Your task to perform on an android device: turn off smart reply in the gmail app Image 0: 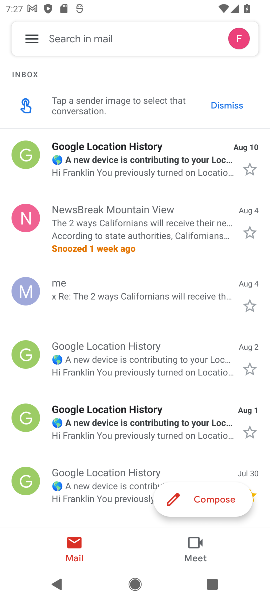
Step 0: click (26, 37)
Your task to perform on an android device: turn off smart reply in the gmail app Image 1: 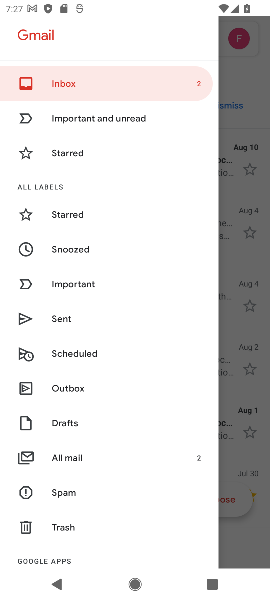
Step 1: drag from (55, 502) to (99, 202)
Your task to perform on an android device: turn off smart reply in the gmail app Image 2: 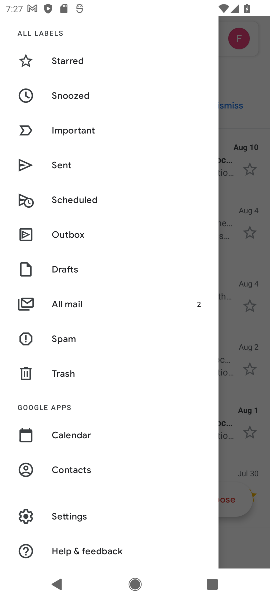
Step 2: click (71, 518)
Your task to perform on an android device: turn off smart reply in the gmail app Image 3: 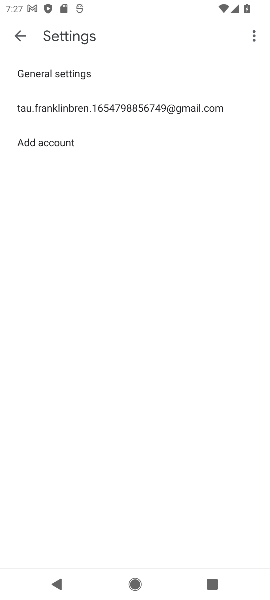
Step 3: click (78, 106)
Your task to perform on an android device: turn off smart reply in the gmail app Image 4: 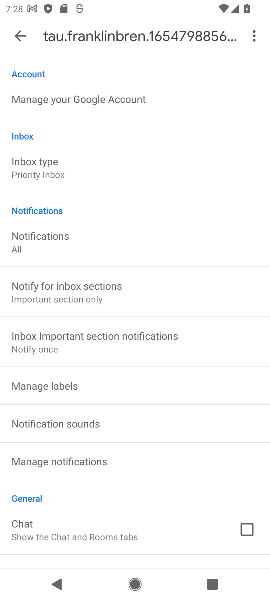
Step 4: drag from (87, 418) to (86, 252)
Your task to perform on an android device: turn off smart reply in the gmail app Image 5: 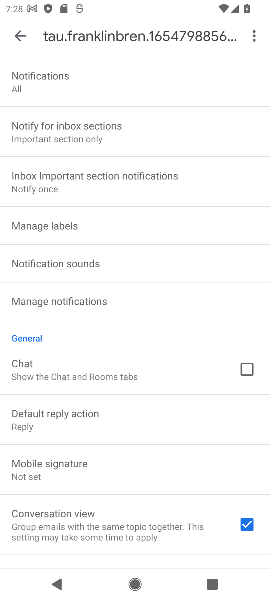
Step 5: drag from (97, 401) to (92, 134)
Your task to perform on an android device: turn off smart reply in the gmail app Image 6: 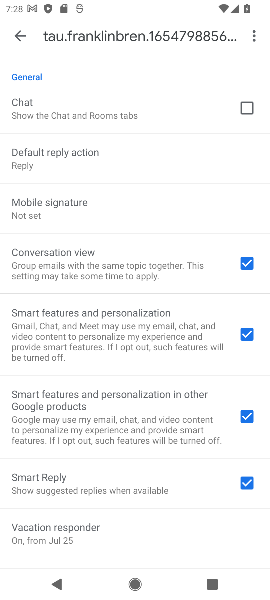
Step 6: click (234, 478)
Your task to perform on an android device: turn off smart reply in the gmail app Image 7: 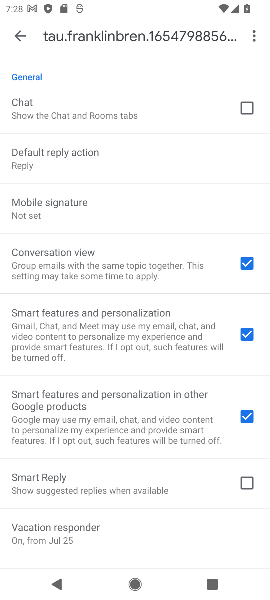
Step 7: task complete